Your task to perform on an android device: Open privacy settings Image 0: 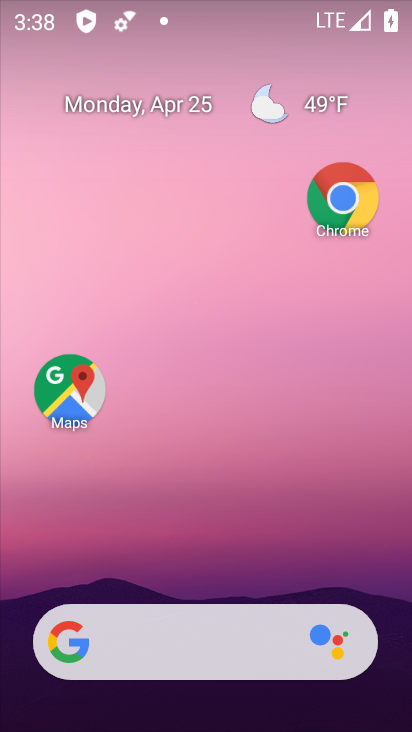
Step 0: drag from (198, 601) to (334, 119)
Your task to perform on an android device: Open privacy settings Image 1: 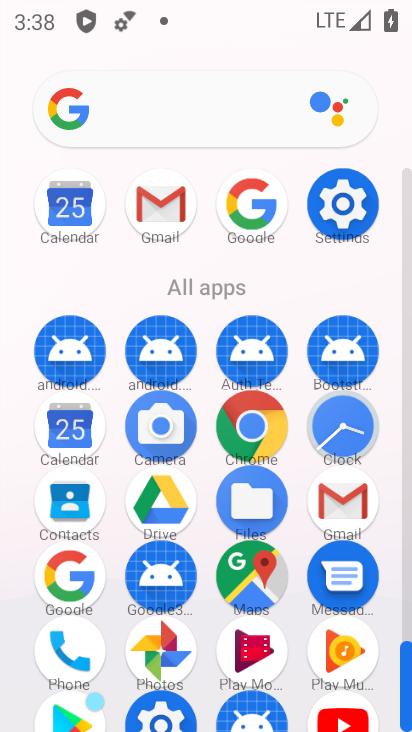
Step 1: click (347, 220)
Your task to perform on an android device: Open privacy settings Image 2: 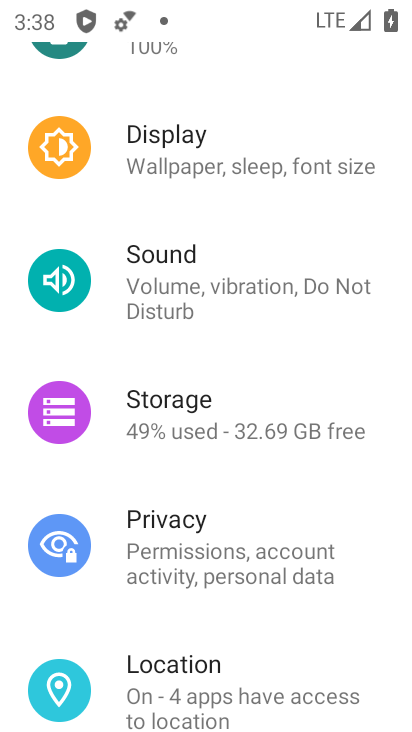
Step 2: drag from (169, 615) to (282, 200)
Your task to perform on an android device: Open privacy settings Image 3: 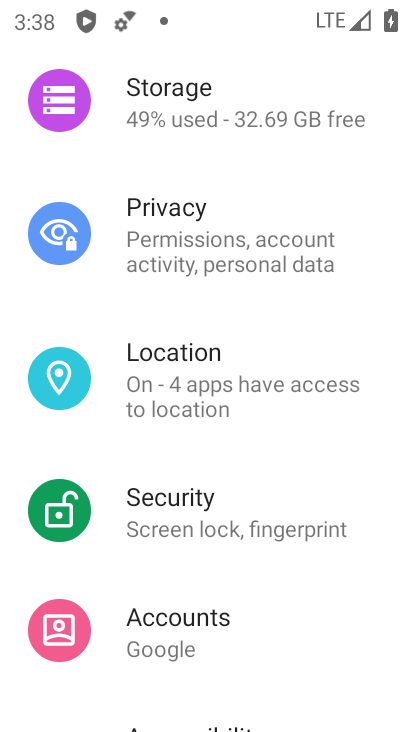
Step 3: drag from (179, 631) to (330, 181)
Your task to perform on an android device: Open privacy settings Image 4: 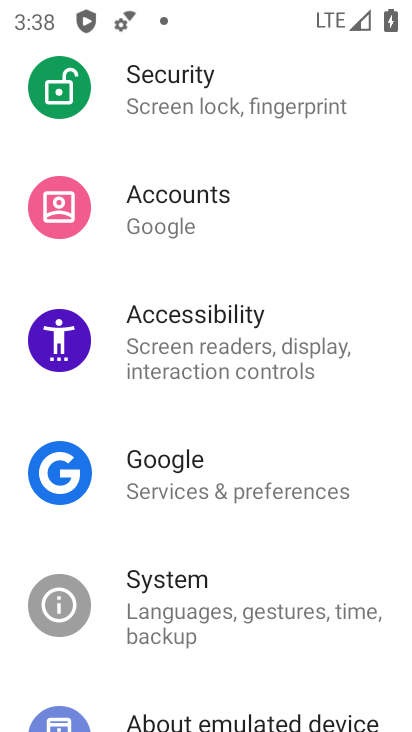
Step 4: drag from (327, 230) to (294, 654)
Your task to perform on an android device: Open privacy settings Image 5: 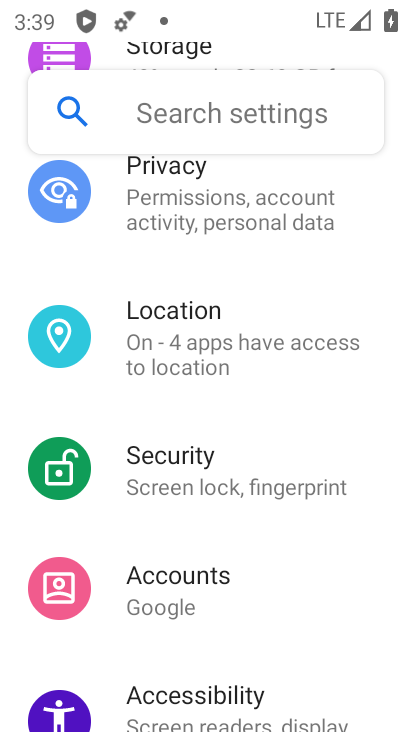
Step 5: click (174, 162)
Your task to perform on an android device: Open privacy settings Image 6: 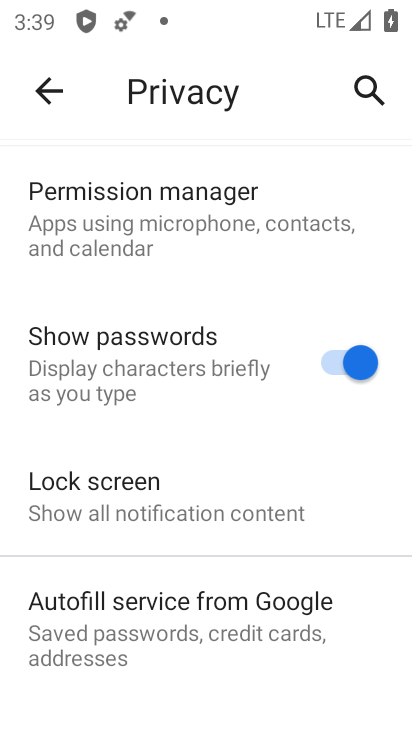
Step 6: task complete